Your task to perform on an android device: Toggle the flashlight Image 0: 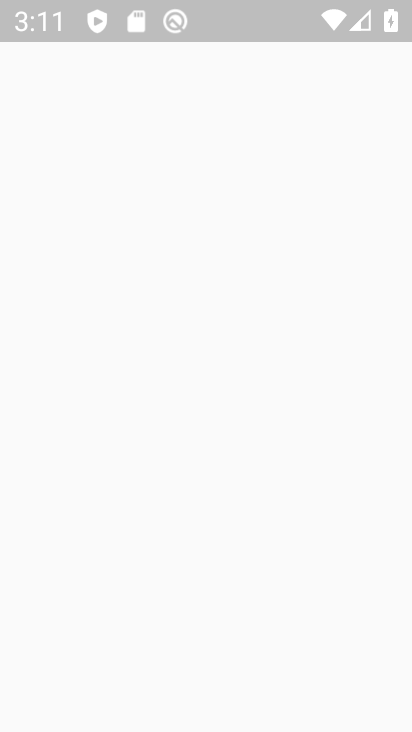
Step 0: press home button
Your task to perform on an android device: Toggle the flashlight Image 1: 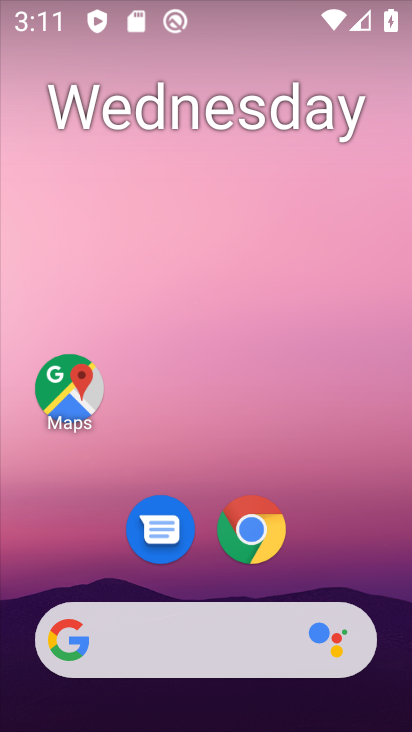
Step 1: task complete